Your task to perform on an android device: Open the phone app and click the voicemail tab. Image 0: 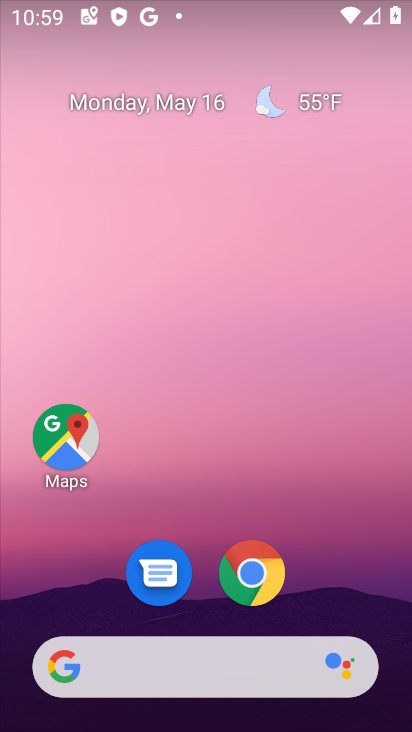
Step 0: drag from (235, 521) to (183, 95)
Your task to perform on an android device: Open the phone app and click the voicemail tab. Image 1: 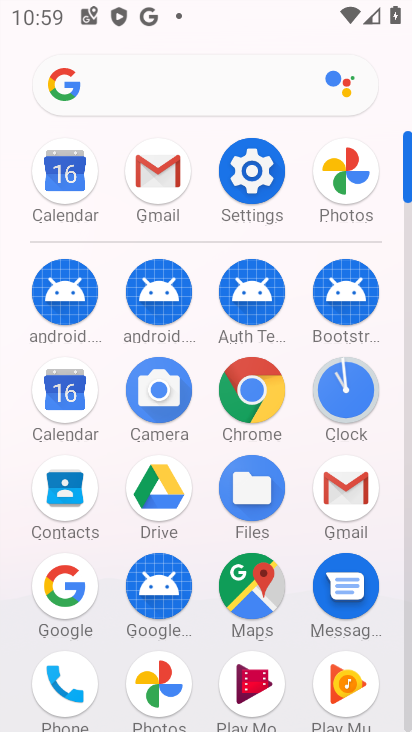
Step 1: click (58, 663)
Your task to perform on an android device: Open the phone app and click the voicemail tab. Image 2: 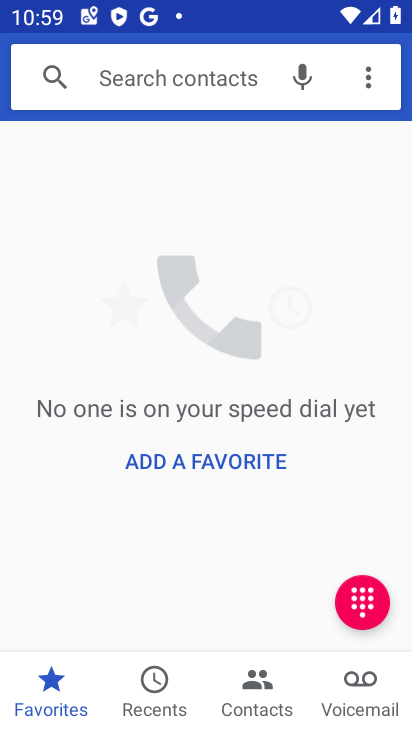
Step 2: click (343, 690)
Your task to perform on an android device: Open the phone app and click the voicemail tab. Image 3: 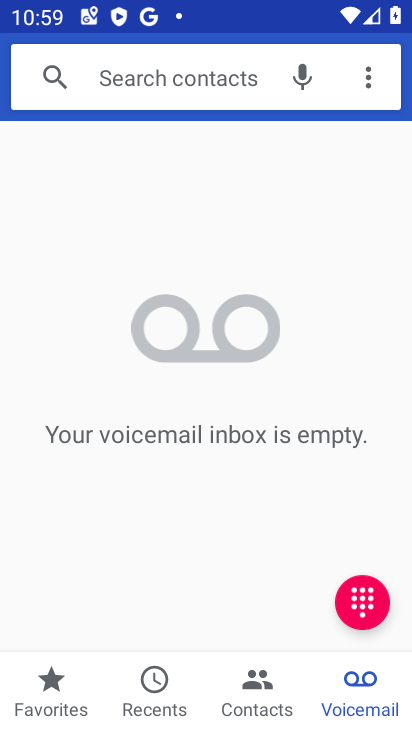
Step 3: task complete